Your task to perform on an android device: turn off location Image 0: 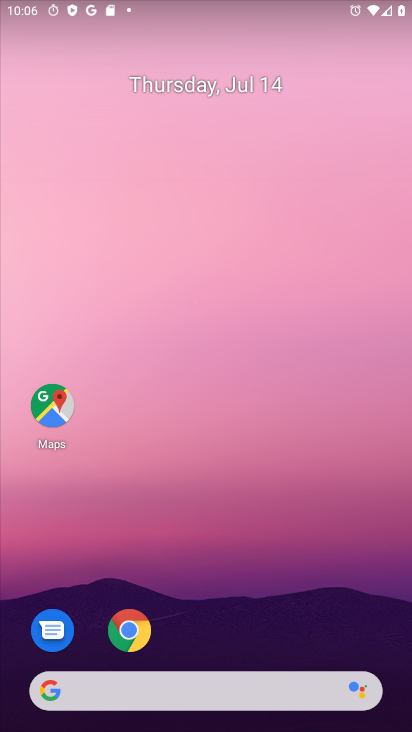
Step 0: drag from (48, 659) to (217, 52)
Your task to perform on an android device: turn off location Image 1: 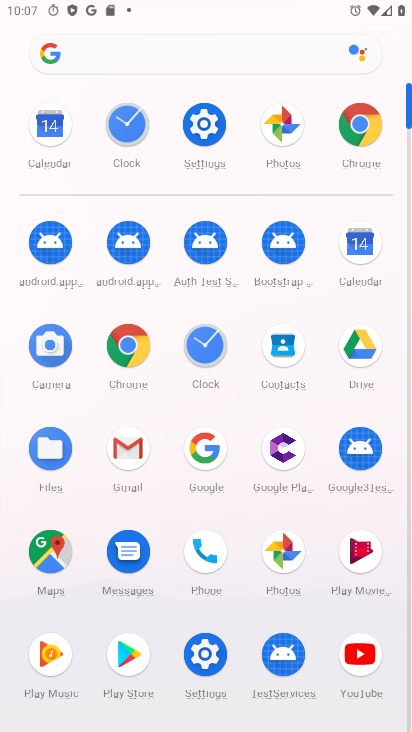
Step 1: click (208, 659)
Your task to perform on an android device: turn off location Image 2: 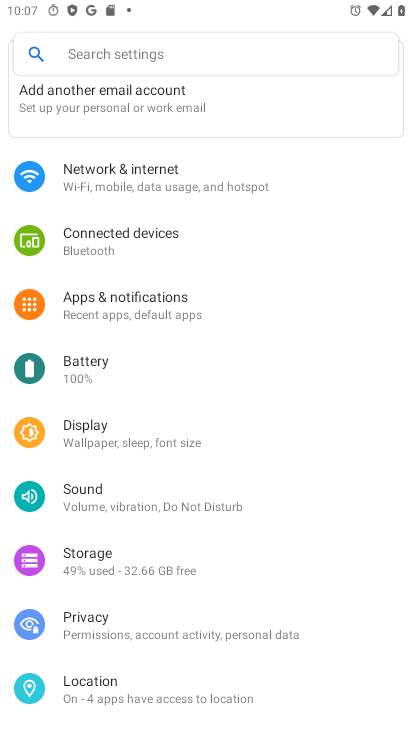
Step 2: click (84, 682)
Your task to perform on an android device: turn off location Image 3: 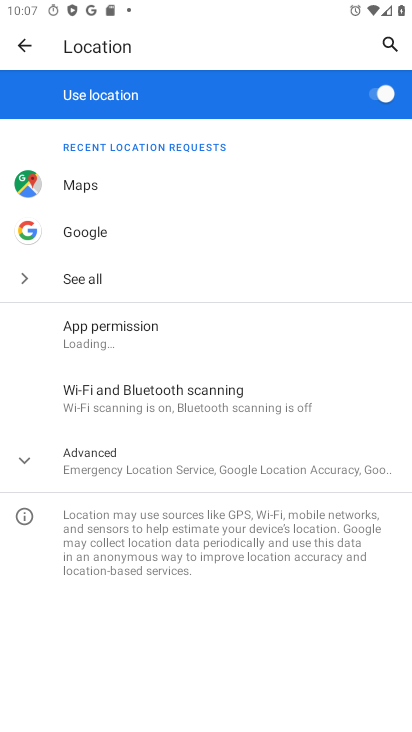
Step 3: click (378, 95)
Your task to perform on an android device: turn off location Image 4: 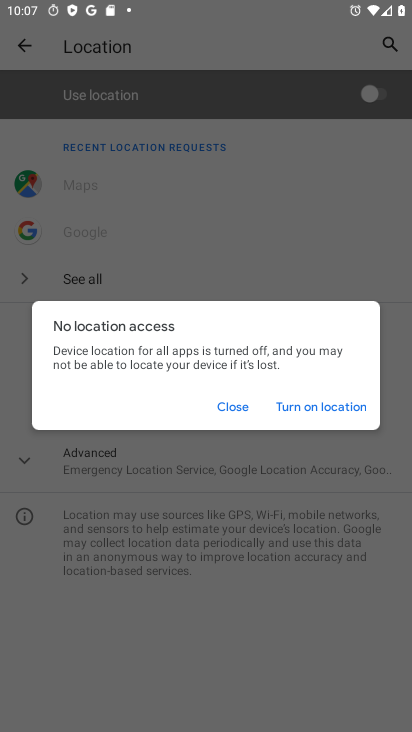
Step 4: task complete